Your task to perform on an android device: Go to internet settings Image 0: 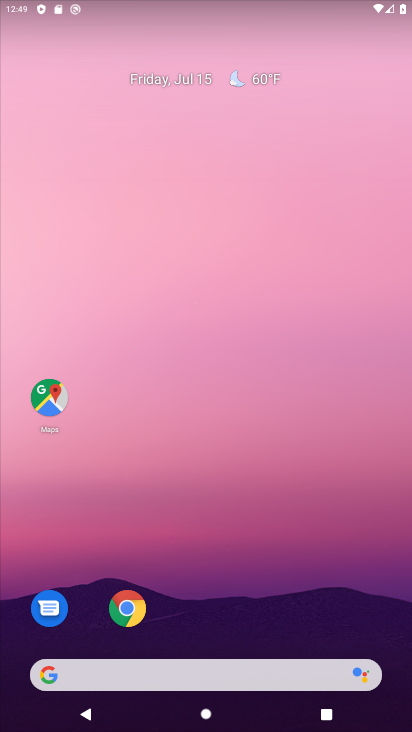
Step 0: drag from (247, 640) to (243, 104)
Your task to perform on an android device: Go to internet settings Image 1: 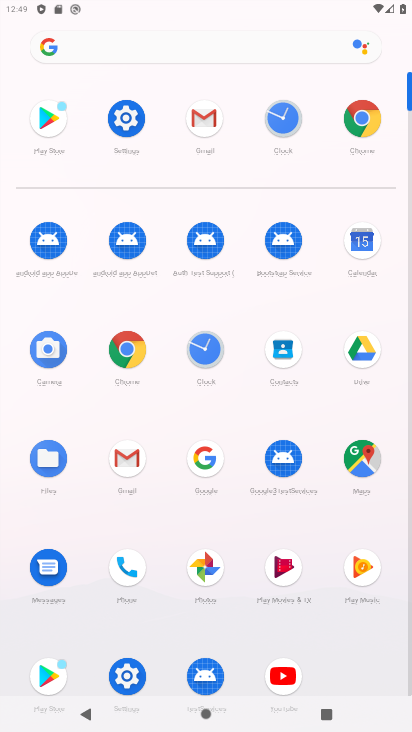
Step 1: click (111, 677)
Your task to perform on an android device: Go to internet settings Image 2: 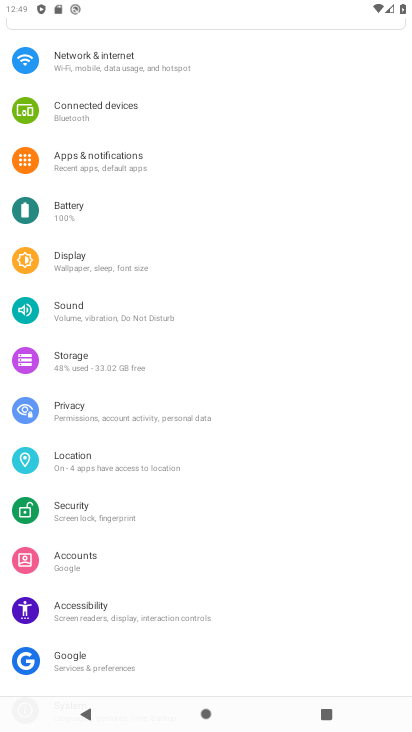
Step 2: click (70, 69)
Your task to perform on an android device: Go to internet settings Image 3: 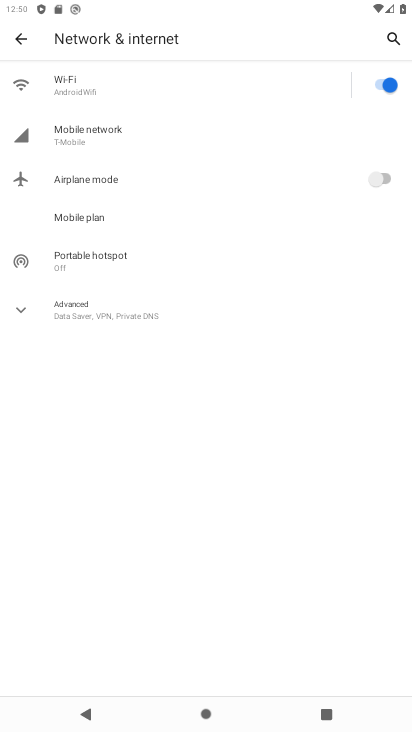
Step 3: task complete